Your task to perform on an android device: open a bookmark in the chrome app Image 0: 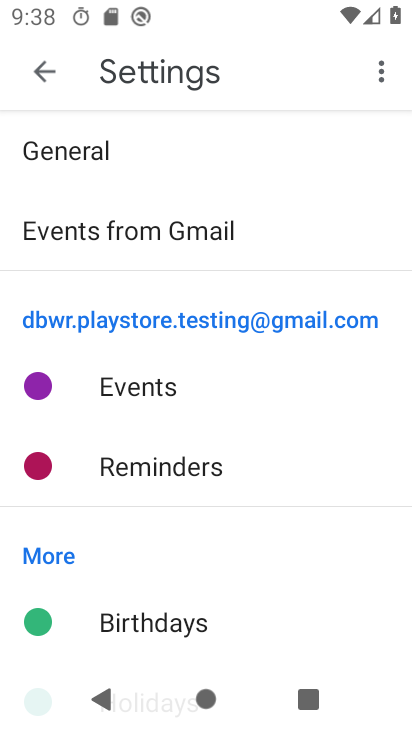
Step 0: press home button
Your task to perform on an android device: open a bookmark in the chrome app Image 1: 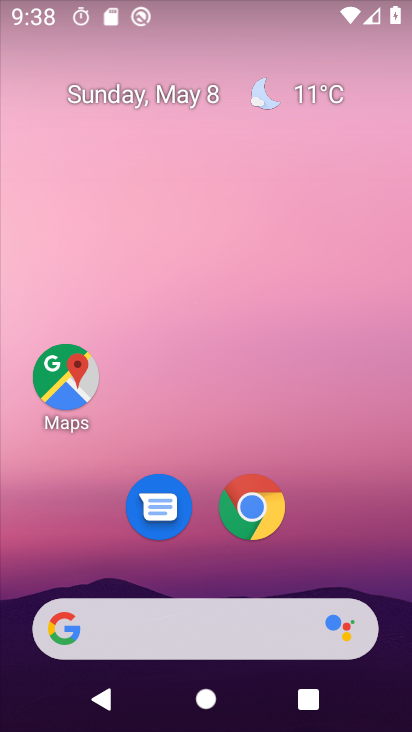
Step 1: click (252, 500)
Your task to perform on an android device: open a bookmark in the chrome app Image 2: 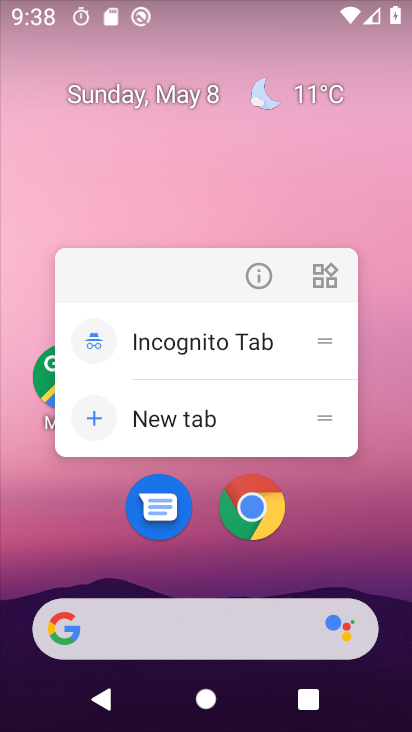
Step 2: click (251, 499)
Your task to perform on an android device: open a bookmark in the chrome app Image 3: 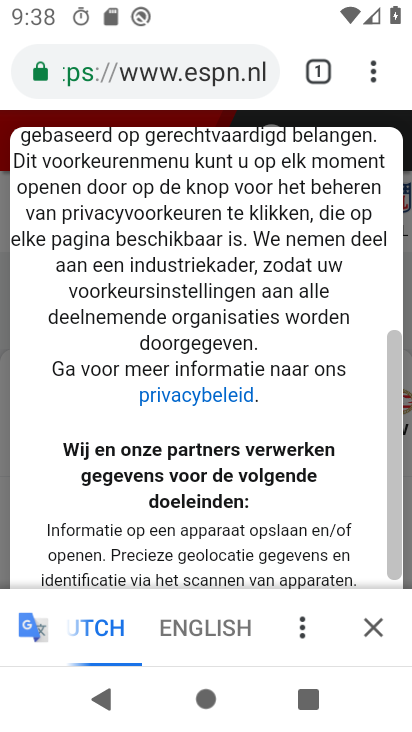
Step 3: drag from (372, 77) to (182, 273)
Your task to perform on an android device: open a bookmark in the chrome app Image 4: 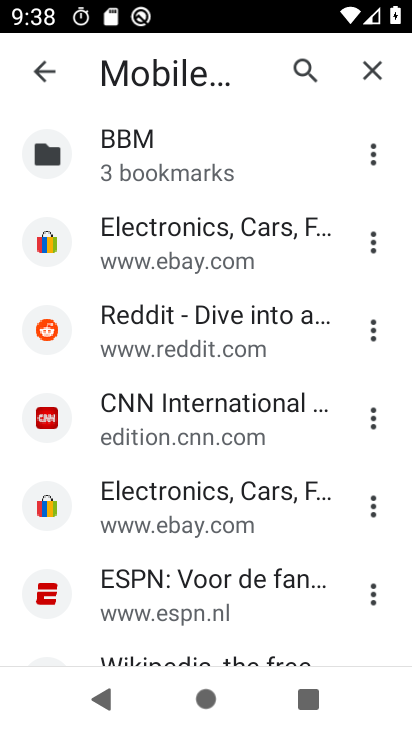
Step 4: click (201, 312)
Your task to perform on an android device: open a bookmark in the chrome app Image 5: 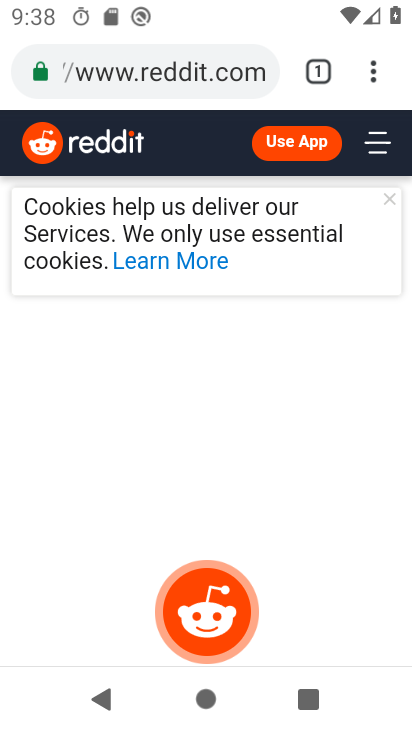
Step 5: task complete